Your task to perform on an android device: open a bookmark in the chrome app Image 0: 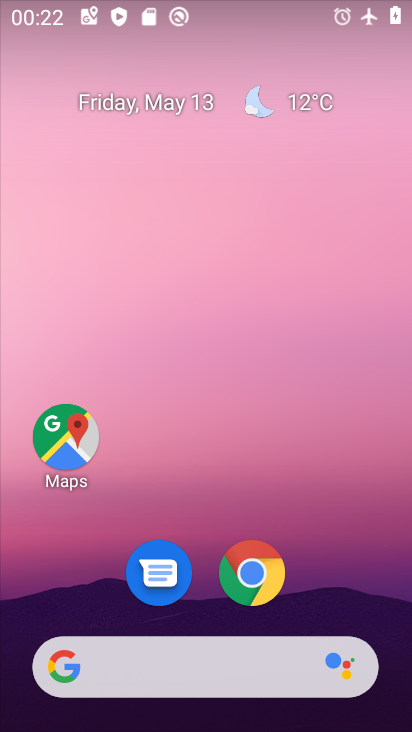
Step 0: click (278, 559)
Your task to perform on an android device: open a bookmark in the chrome app Image 1: 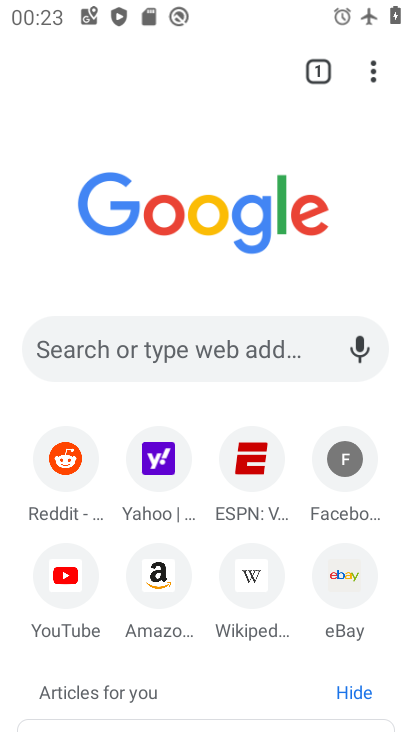
Step 1: click (379, 78)
Your task to perform on an android device: open a bookmark in the chrome app Image 2: 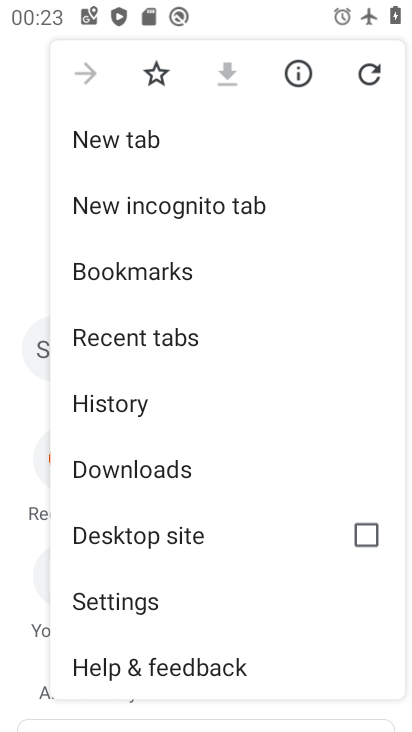
Step 2: click (173, 277)
Your task to perform on an android device: open a bookmark in the chrome app Image 3: 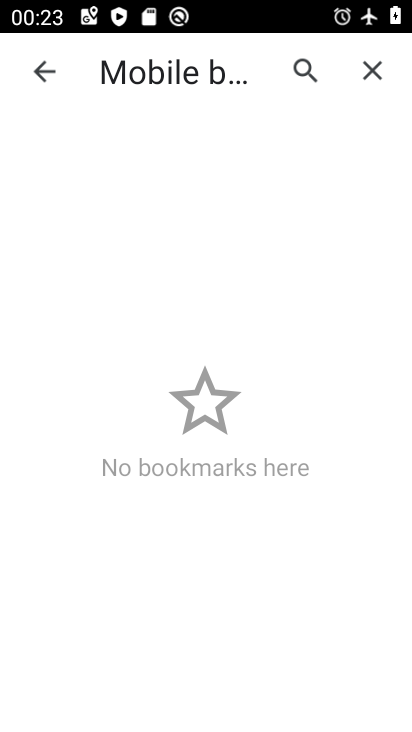
Step 3: task complete